Your task to perform on an android device: turn on notifications settings in the gmail app Image 0: 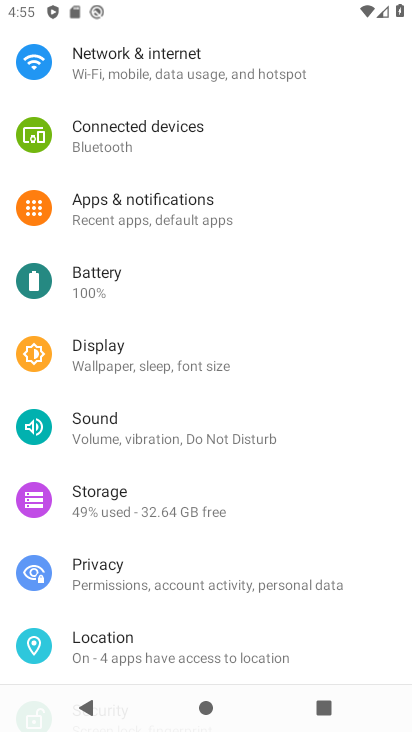
Step 0: press home button
Your task to perform on an android device: turn on notifications settings in the gmail app Image 1: 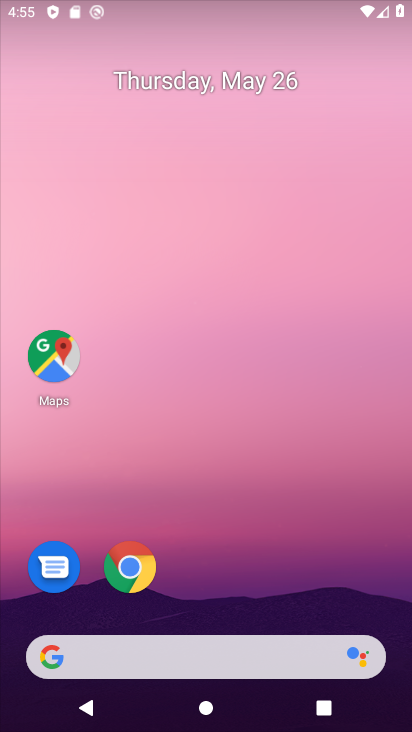
Step 1: drag from (320, 567) to (342, 121)
Your task to perform on an android device: turn on notifications settings in the gmail app Image 2: 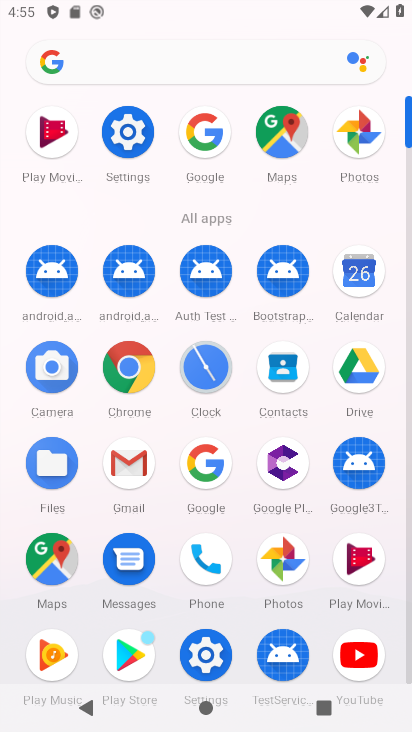
Step 2: click (126, 463)
Your task to perform on an android device: turn on notifications settings in the gmail app Image 3: 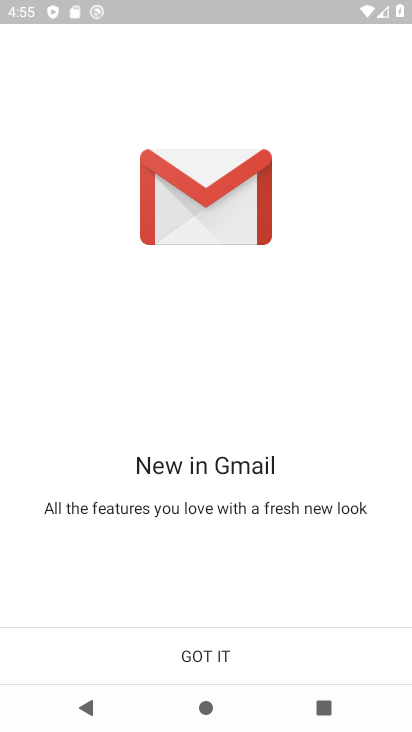
Step 3: click (210, 675)
Your task to perform on an android device: turn on notifications settings in the gmail app Image 4: 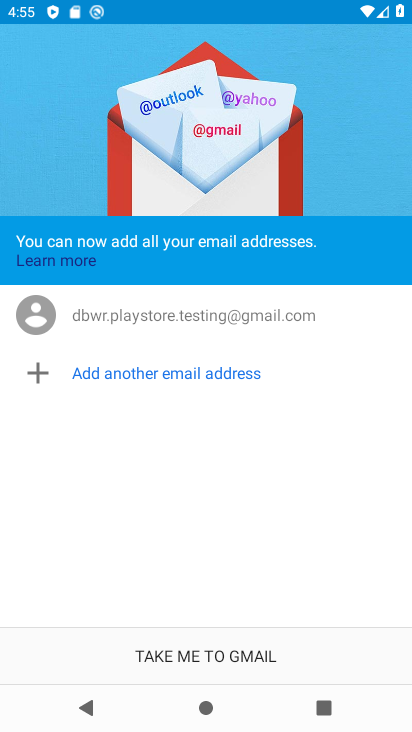
Step 4: click (228, 658)
Your task to perform on an android device: turn on notifications settings in the gmail app Image 5: 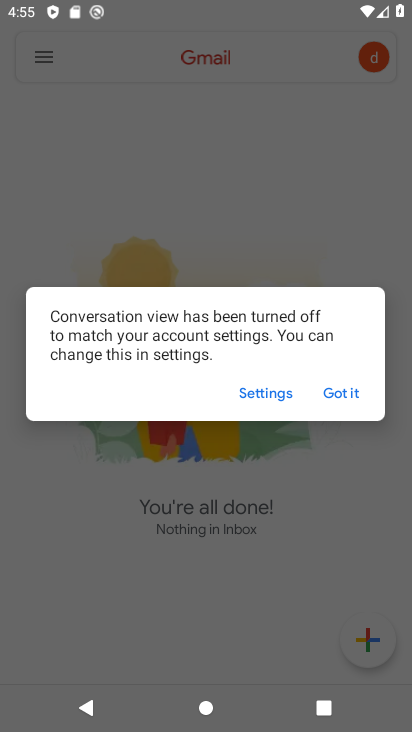
Step 5: click (332, 389)
Your task to perform on an android device: turn on notifications settings in the gmail app Image 6: 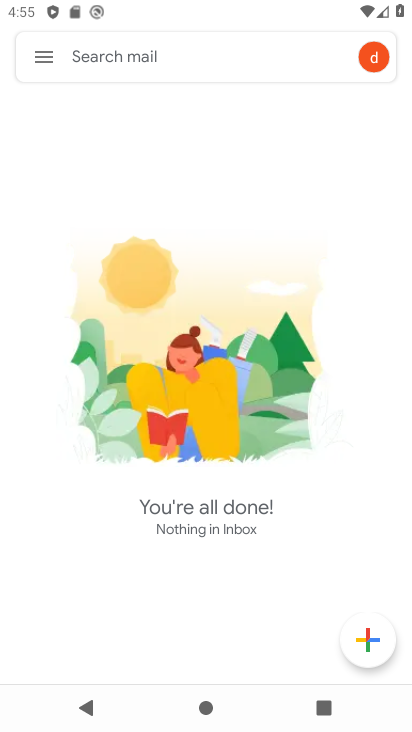
Step 6: click (39, 58)
Your task to perform on an android device: turn on notifications settings in the gmail app Image 7: 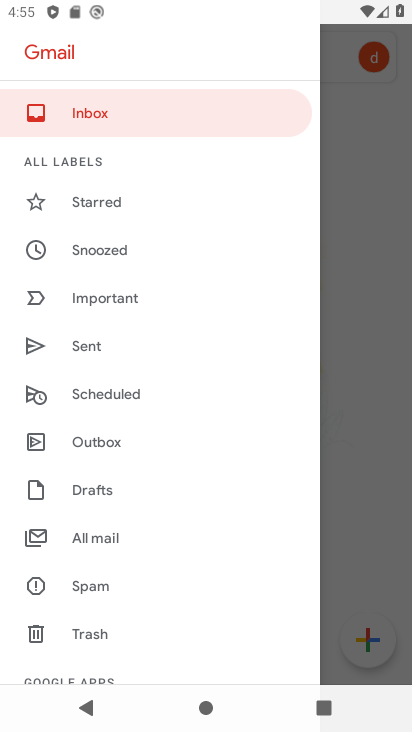
Step 7: drag from (207, 607) to (235, 404)
Your task to perform on an android device: turn on notifications settings in the gmail app Image 8: 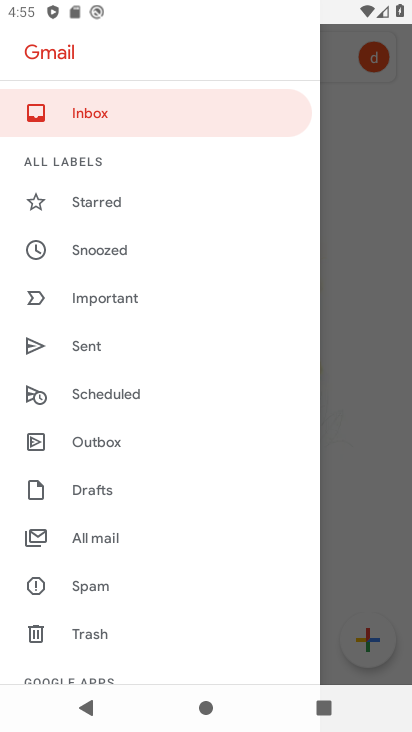
Step 8: drag from (242, 657) to (193, 168)
Your task to perform on an android device: turn on notifications settings in the gmail app Image 9: 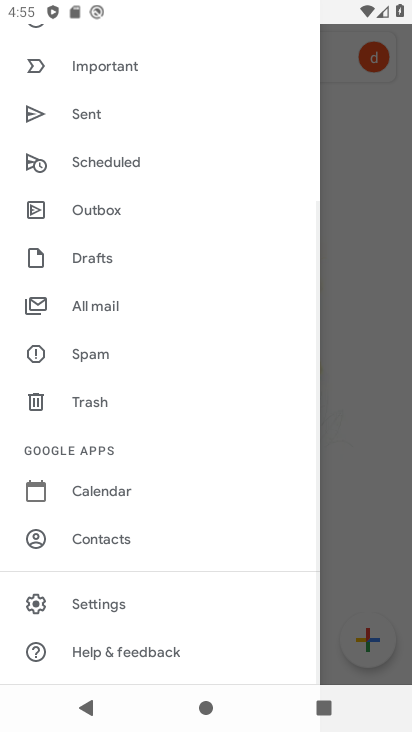
Step 9: click (86, 606)
Your task to perform on an android device: turn on notifications settings in the gmail app Image 10: 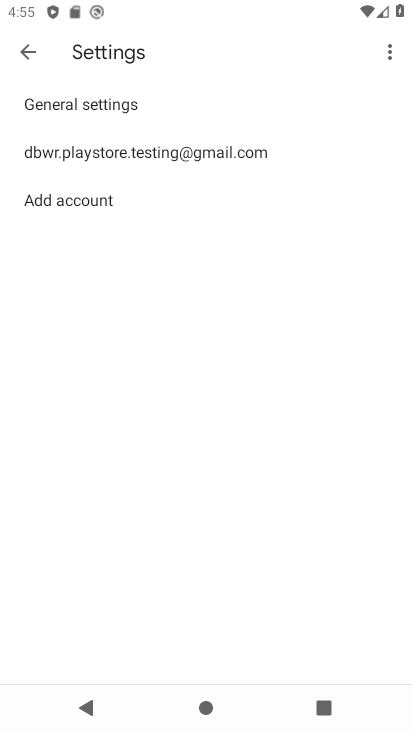
Step 10: click (104, 155)
Your task to perform on an android device: turn on notifications settings in the gmail app Image 11: 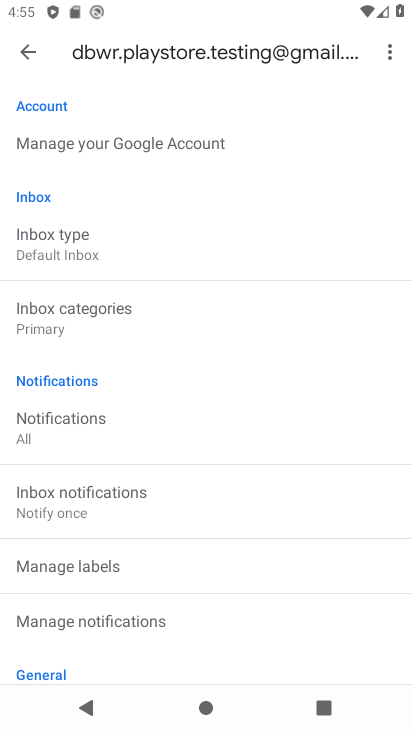
Step 11: click (55, 442)
Your task to perform on an android device: turn on notifications settings in the gmail app Image 12: 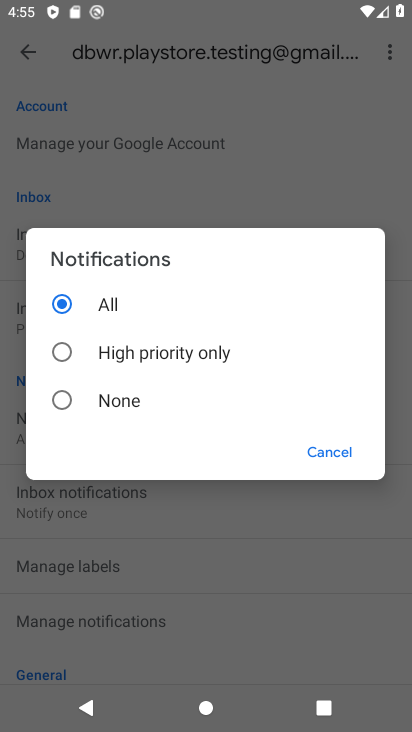
Step 12: click (324, 452)
Your task to perform on an android device: turn on notifications settings in the gmail app Image 13: 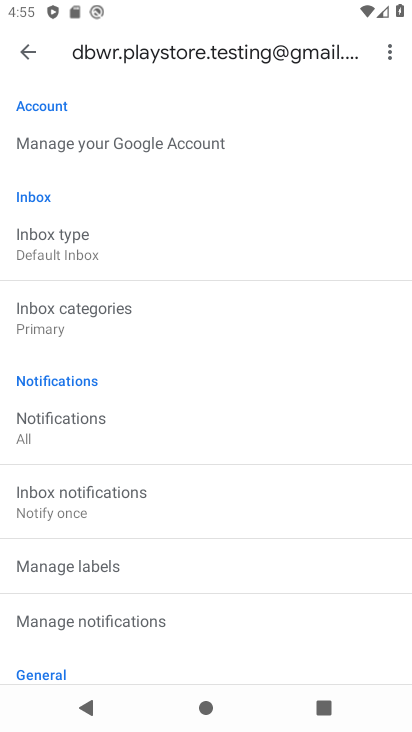
Step 13: task complete